Your task to perform on an android device: Search for sushi restaurants on Maps Image 0: 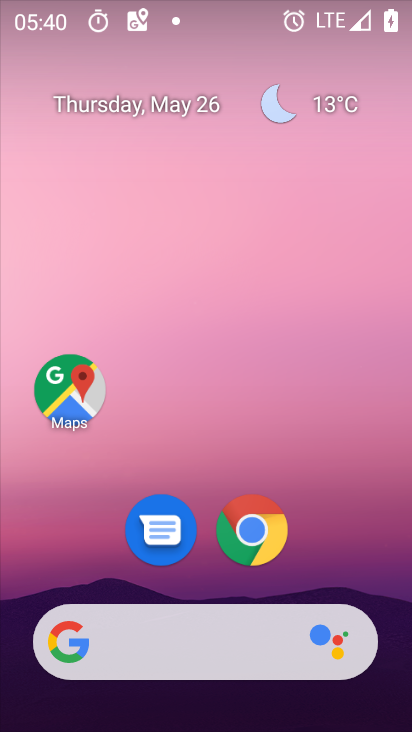
Step 0: drag from (223, 608) to (343, 0)
Your task to perform on an android device: Search for sushi restaurants on Maps Image 1: 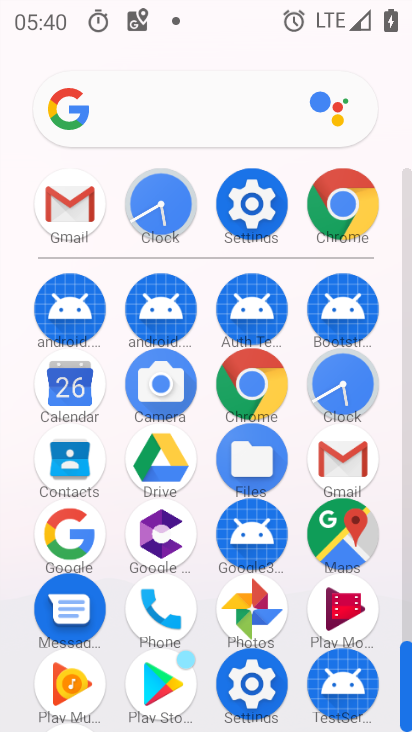
Step 1: click (344, 544)
Your task to perform on an android device: Search for sushi restaurants on Maps Image 2: 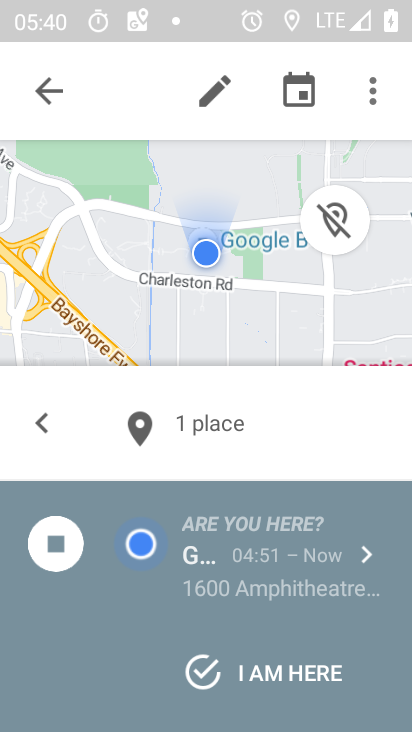
Step 2: press back button
Your task to perform on an android device: Search for sushi restaurants on Maps Image 3: 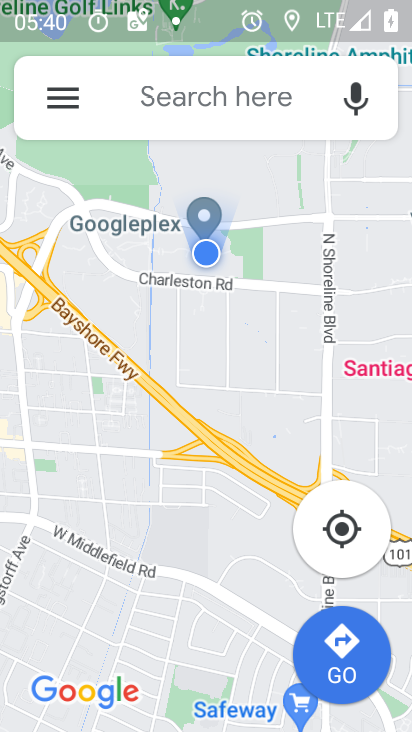
Step 3: click (243, 104)
Your task to perform on an android device: Search for sushi restaurants on Maps Image 4: 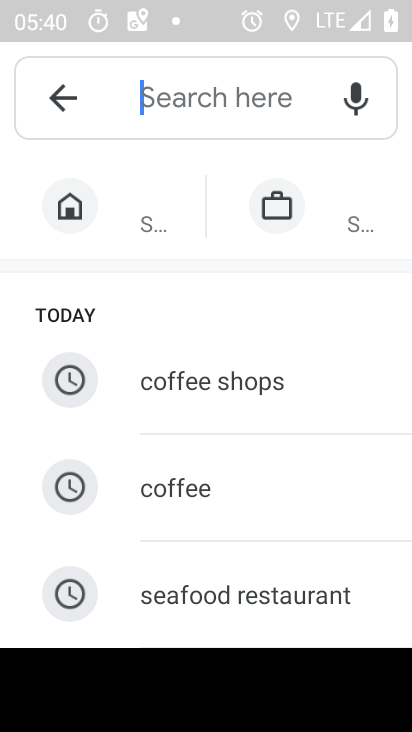
Step 4: type "sushi restaurant"
Your task to perform on an android device: Search for sushi restaurants on Maps Image 5: 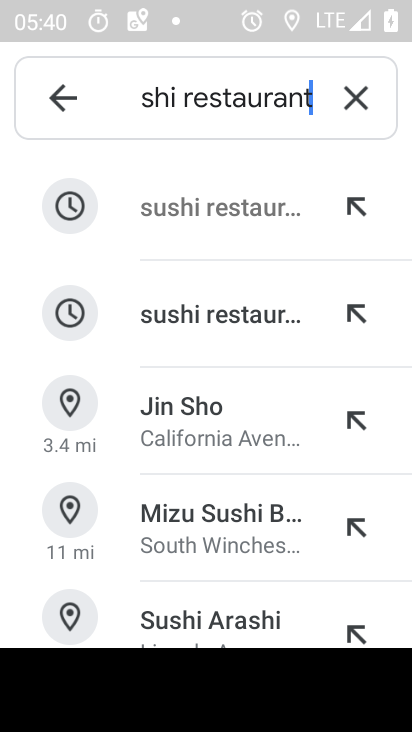
Step 5: click (192, 314)
Your task to perform on an android device: Search for sushi restaurants on Maps Image 6: 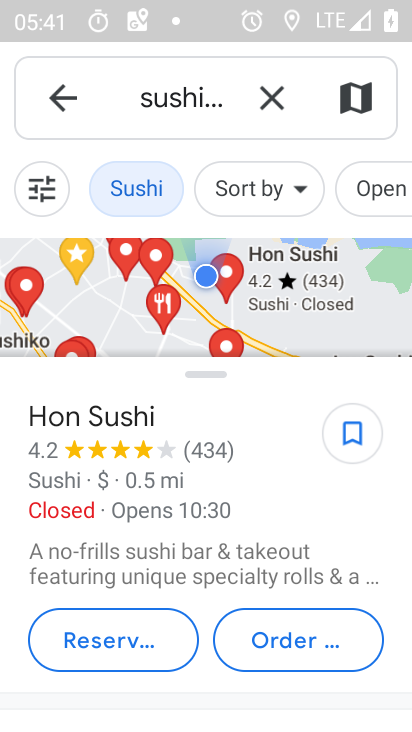
Step 6: task complete